Your task to perform on an android device: turn on the 12-hour format for clock Image 0: 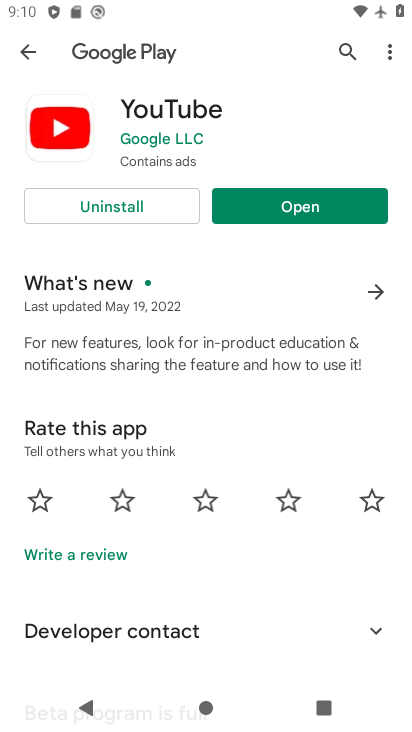
Step 0: press home button
Your task to perform on an android device: turn on the 12-hour format for clock Image 1: 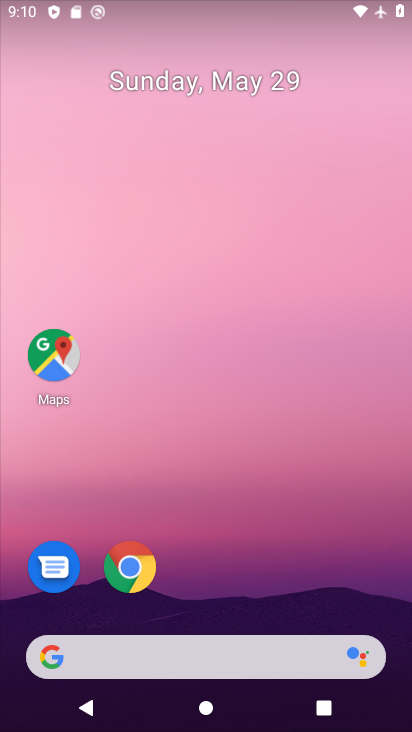
Step 1: drag from (378, 614) to (302, 4)
Your task to perform on an android device: turn on the 12-hour format for clock Image 2: 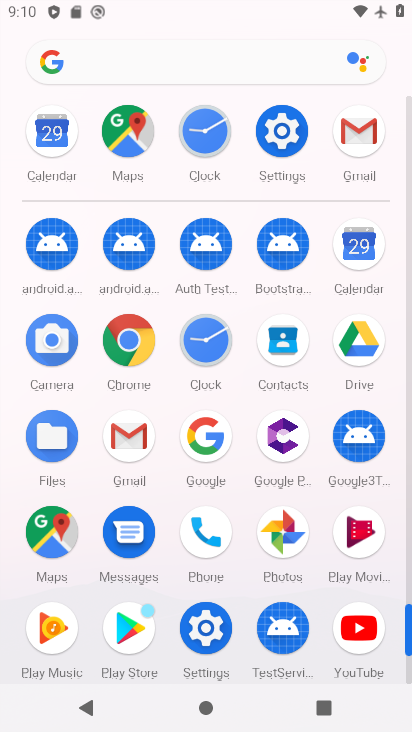
Step 2: click (208, 338)
Your task to perform on an android device: turn on the 12-hour format for clock Image 3: 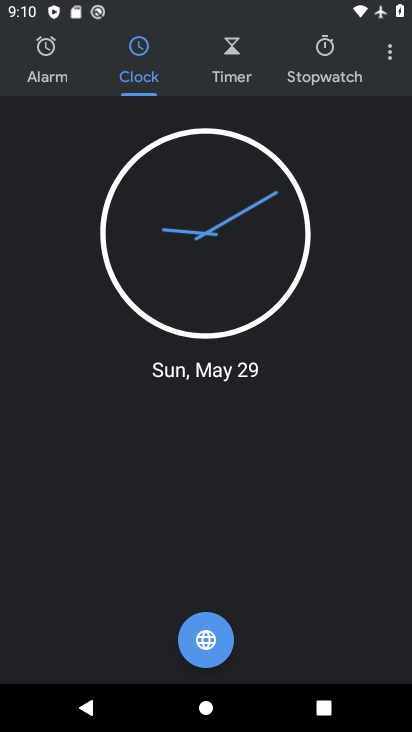
Step 3: click (390, 60)
Your task to perform on an android device: turn on the 12-hour format for clock Image 4: 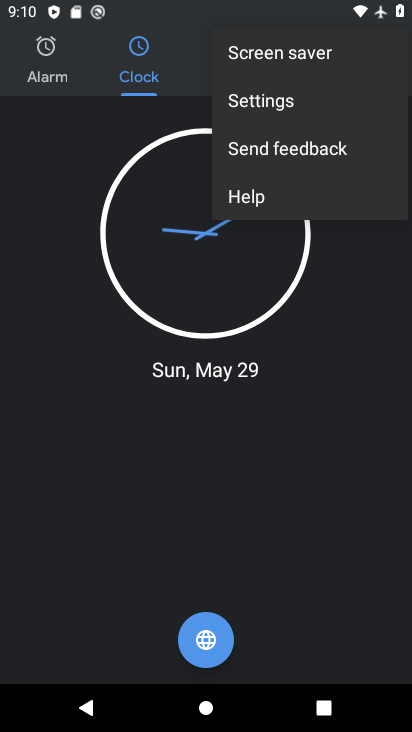
Step 4: click (257, 100)
Your task to perform on an android device: turn on the 12-hour format for clock Image 5: 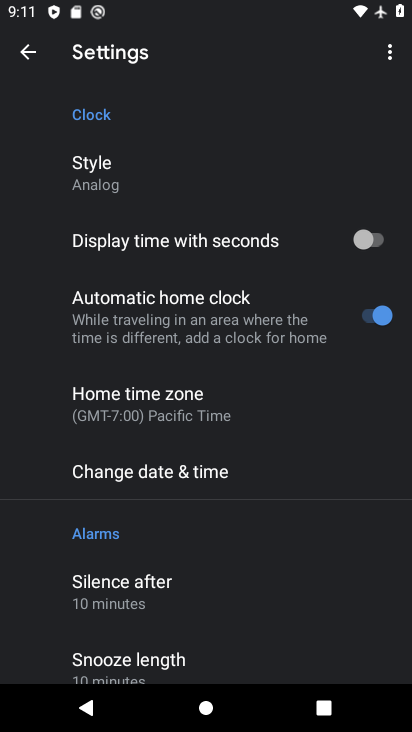
Step 5: click (174, 472)
Your task to perform on an android device: turn on the 12-hour format for clock Image 6: 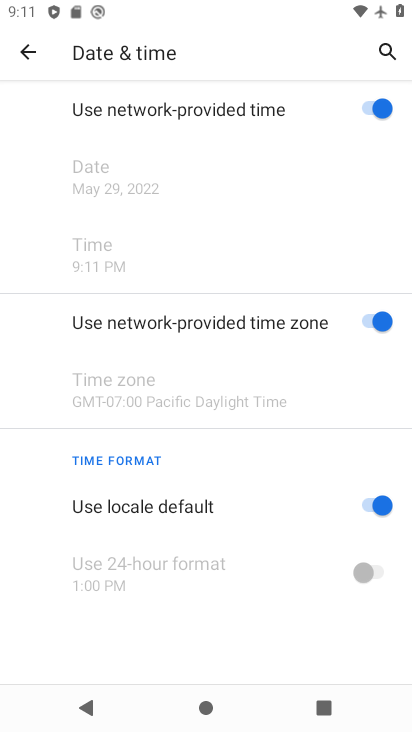
Step 6: task complete